Your task to perform on an android device: turn on priority inbox in the gmail app Image 0: 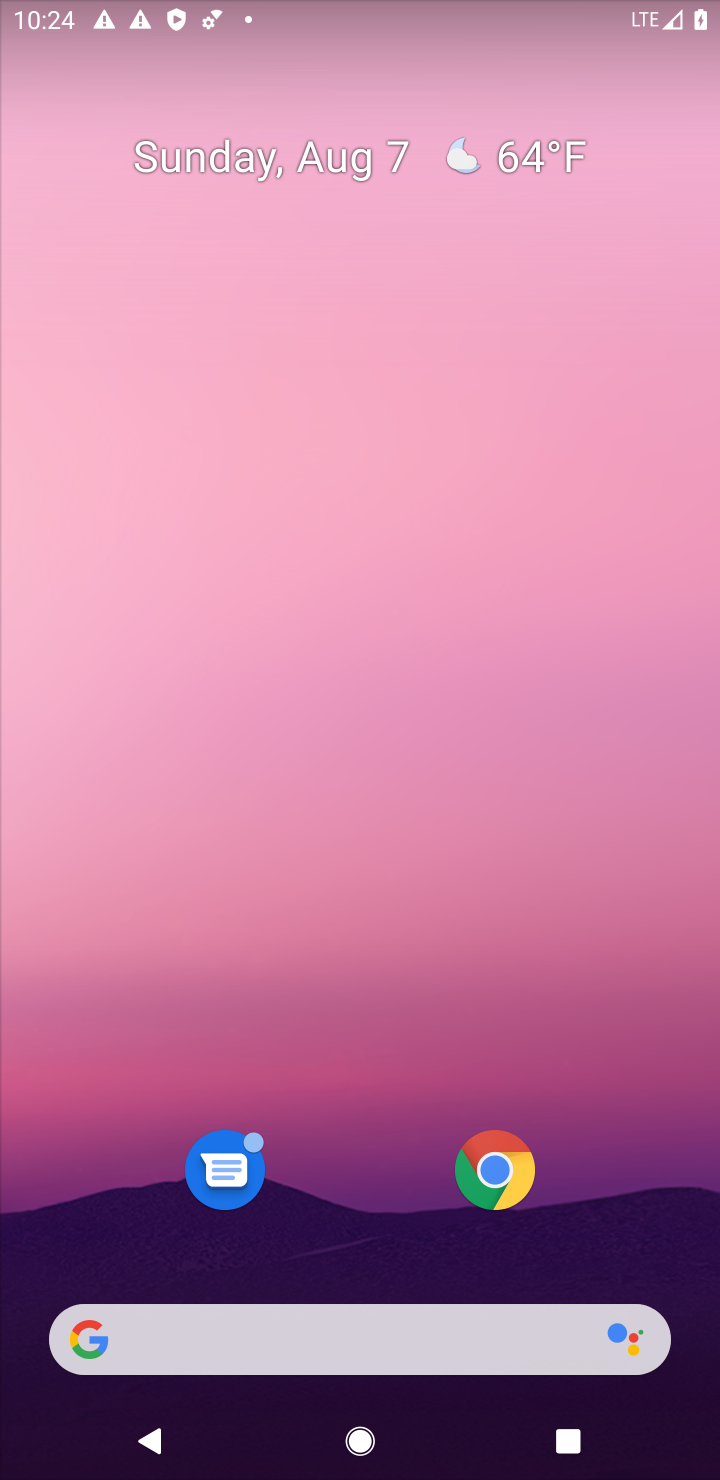
Step 0: press home button
Your task to perform on an android device: turn on priority inbox in the gmail app Image 1: 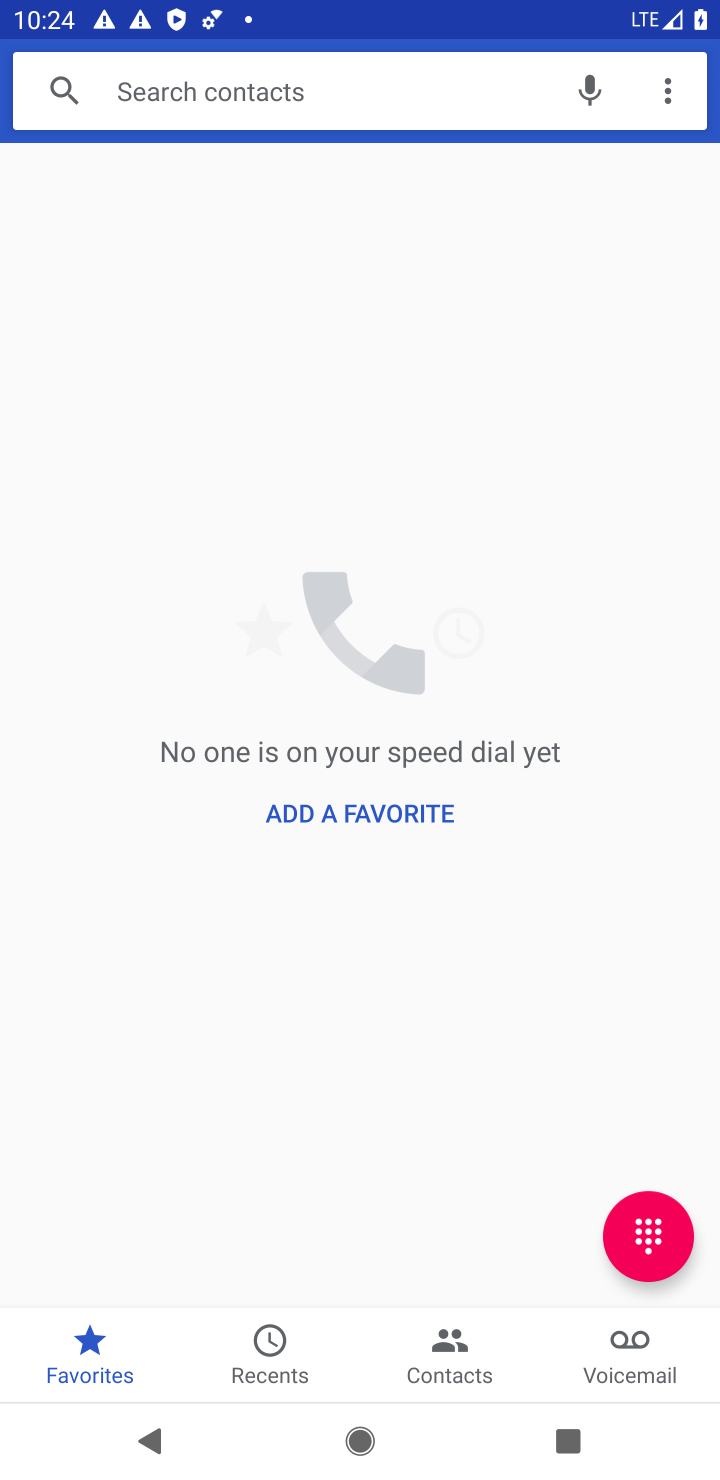
Step 1: drag from (357, 1353) to (536, 93)
Your task to perform on an android device: turn on priority inbox in the gmail app Image 2: 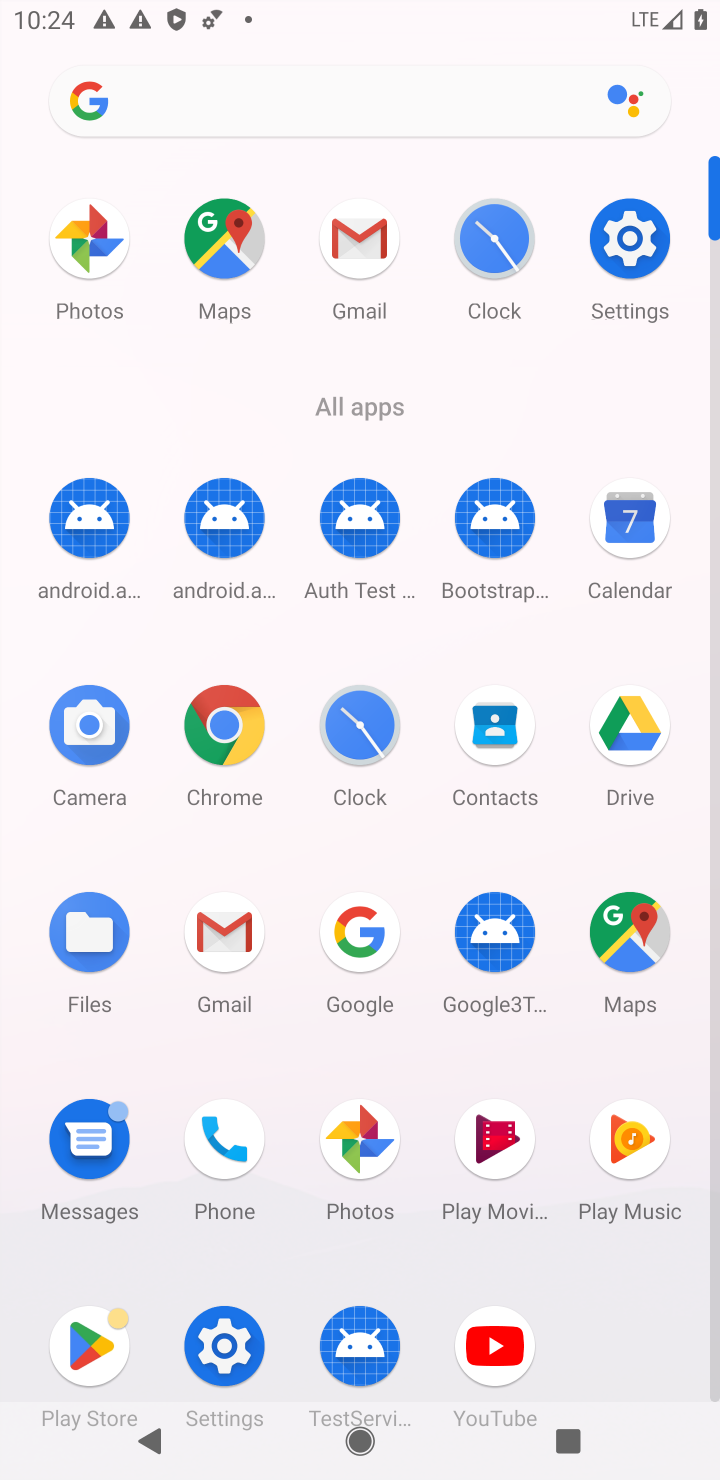
Step 2: click (224, 954)
Your task to perform on an android device: turn on priority inbox in the gmail app Image 3: 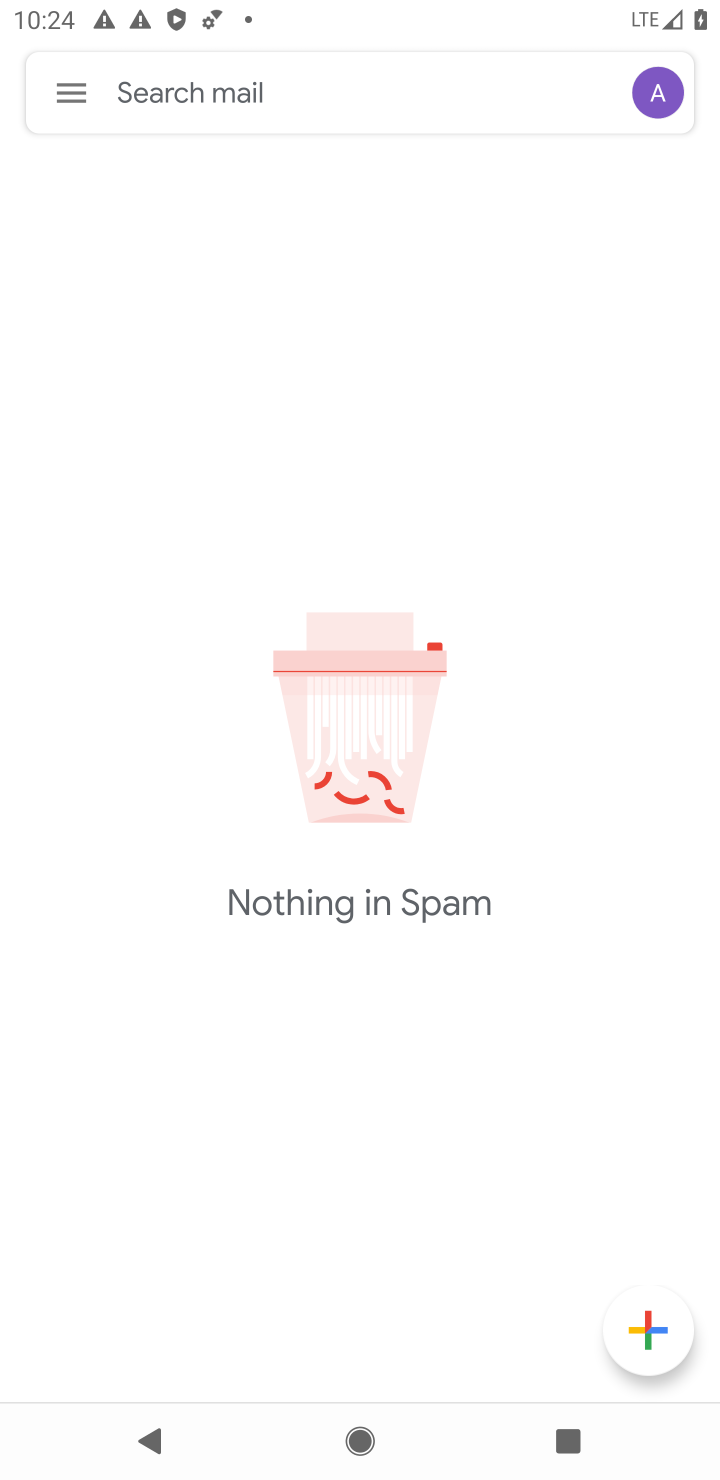
Step 3: click (84, 98)
Your task to perform on an android device: turn on priority inbox in the gmail app Image 4: 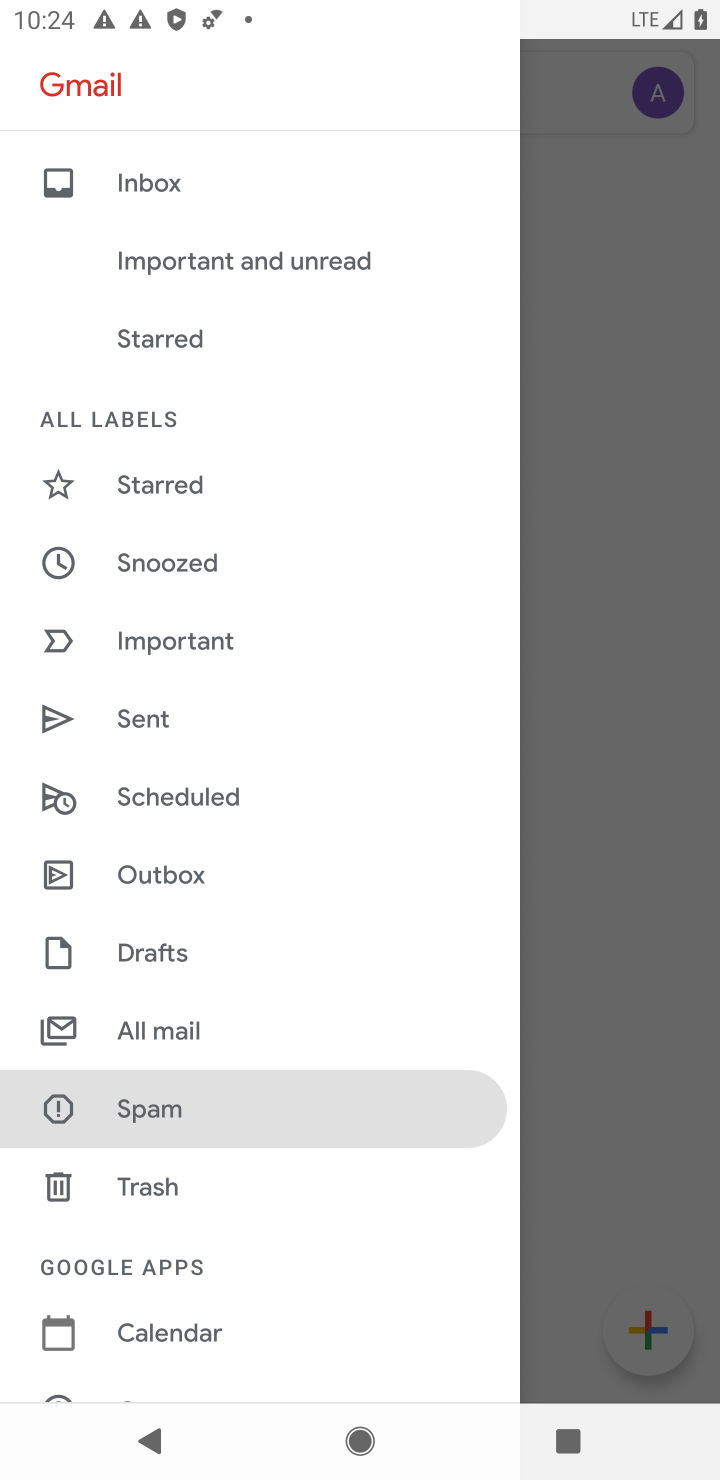
Step 4: drag from (373, 1282) to (167, 272)
Your task to perform on an android device: turn on priority inbox in the gmail app Image 5: 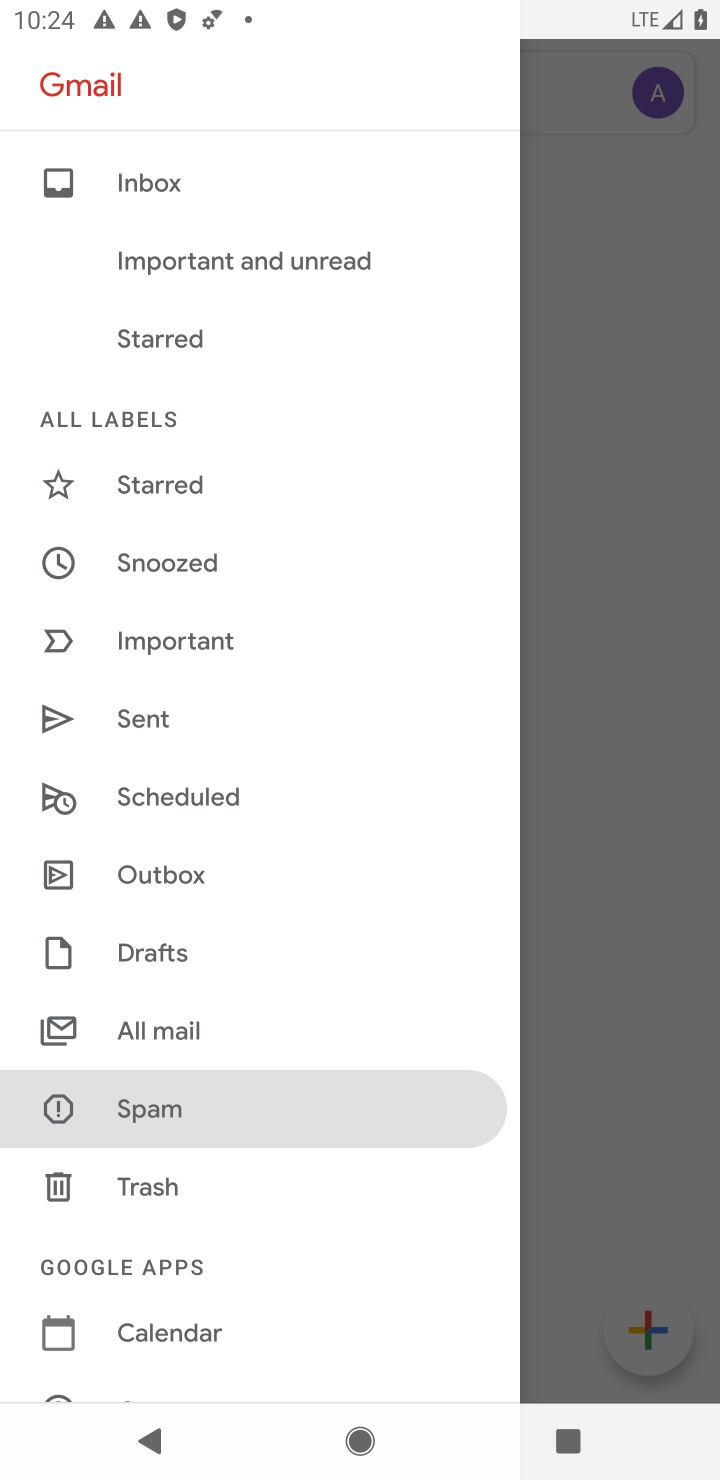
Step 5: drag from (379, 1308) to (436, 849)
Your task to perform on an android device: turn on priority inbox in the gmail app Image 6: 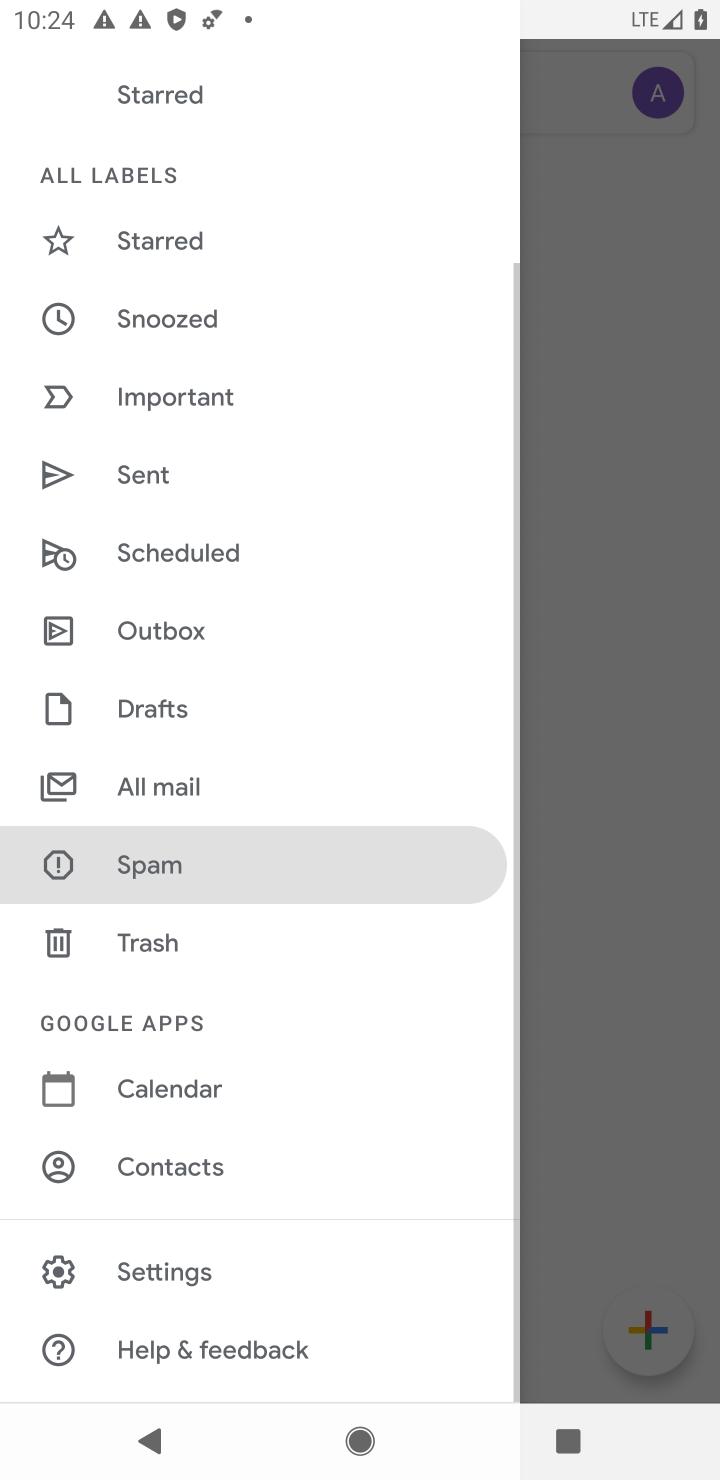
Step 6: click (189, 1278)
Your task to perform on an android device: turn on priority inbox in the gmail app Image 7: 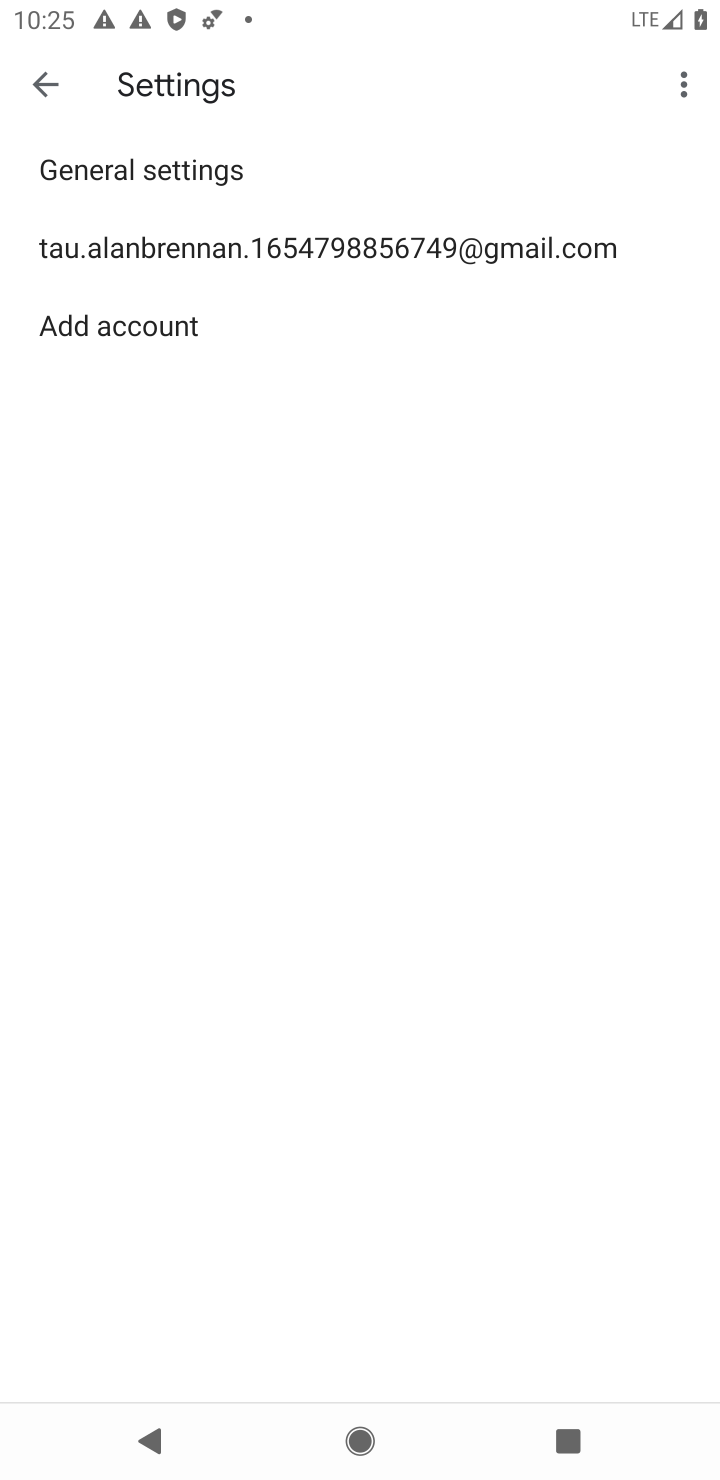
Step 7: click (526, 255)
Your task to perform on an android device: turn on priority inbox in the gmail app Image 8: 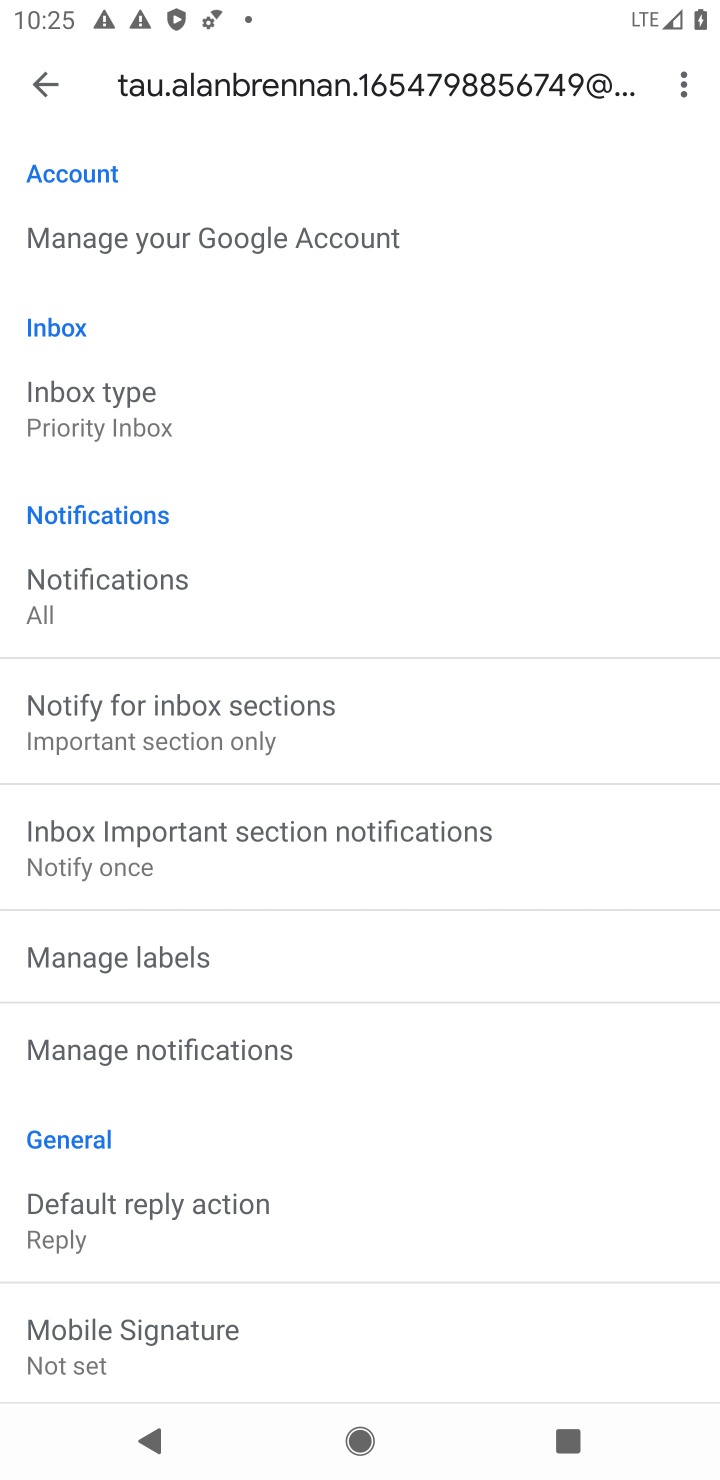
Step 8: task complete